Your task to perform on an android device: Open CNN.com Image 0: 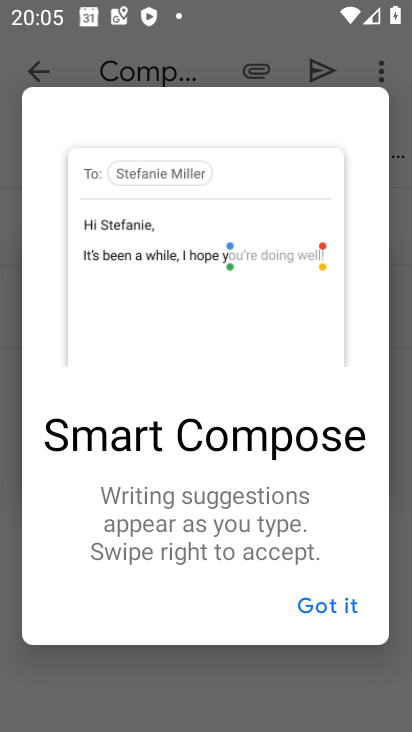
Step 0: press home button
Your task to perform on an android device: Open CNN.com Image 1: 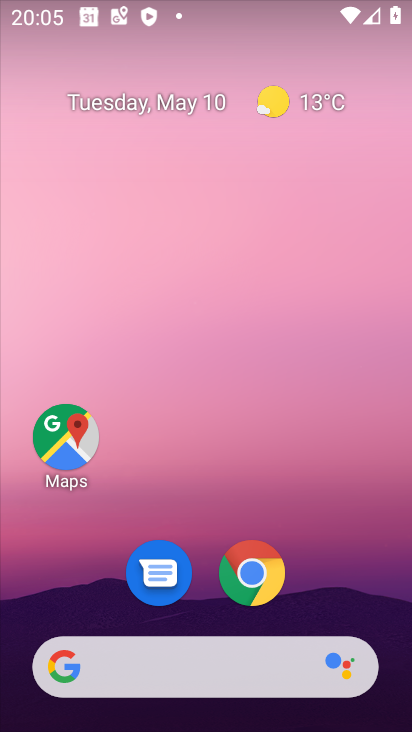
Step 1: click (249, 582)
Your task to perform on an android device: Open CNN.com Image 2: 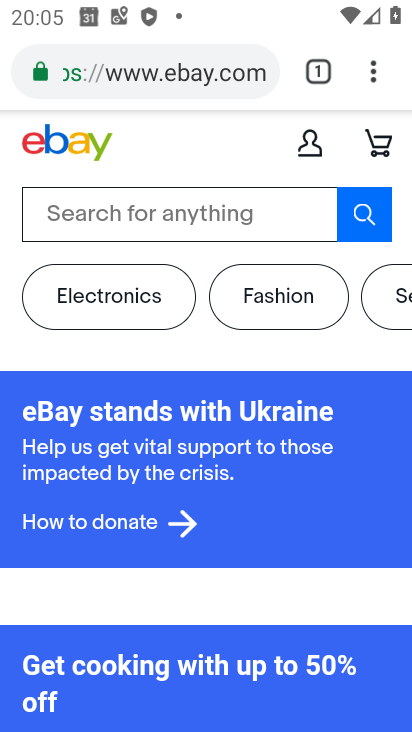
Step 2: click (117, 82)
Your task to perform on an android device: Open CNN.com Image 3: 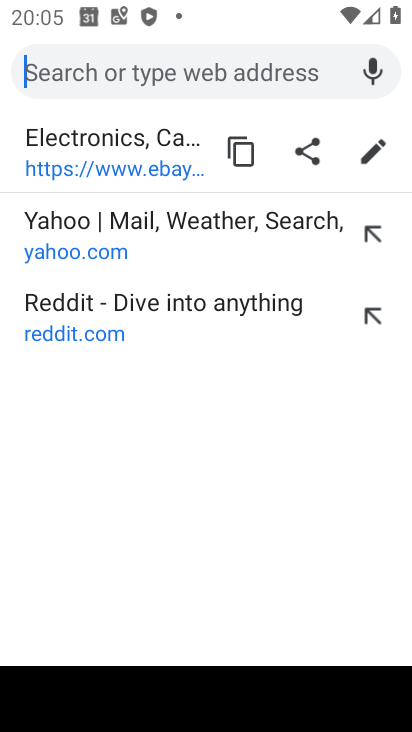
Step 3: type "cnn.com"
Your task to perform on an android device: Open CNN.com Image 4: 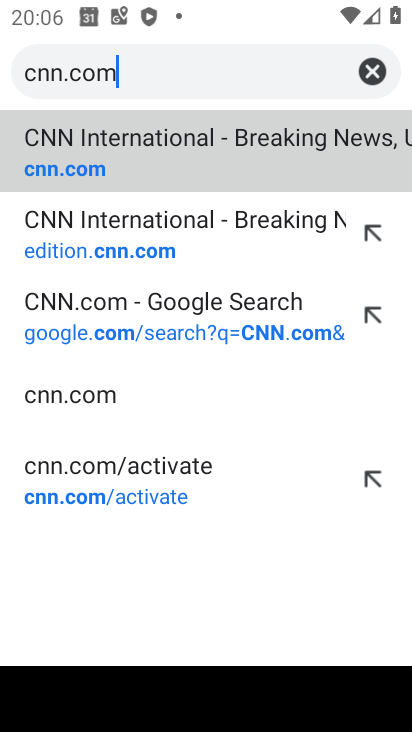
Step 4: click (63, 396)
Your task to perform on an android device: Open CNN.com Image 5: 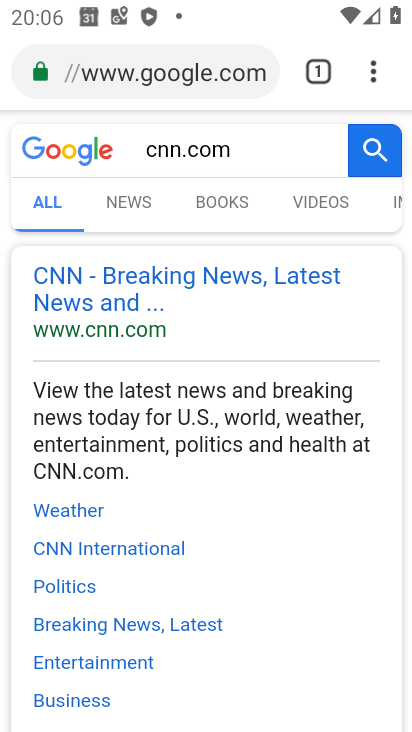
Step 5: click (80, 328)
Your task to perform on an android device: Open CNN.com Image 6: 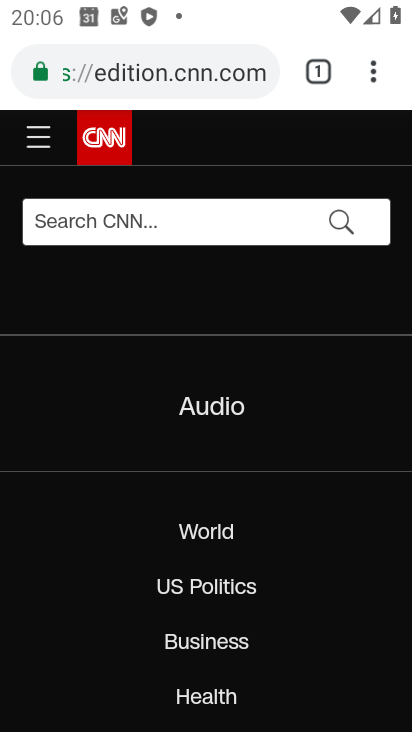
Step 6: task complete